Your task to perform on an android device: turn vacation reply on in the gmail app Image 0: 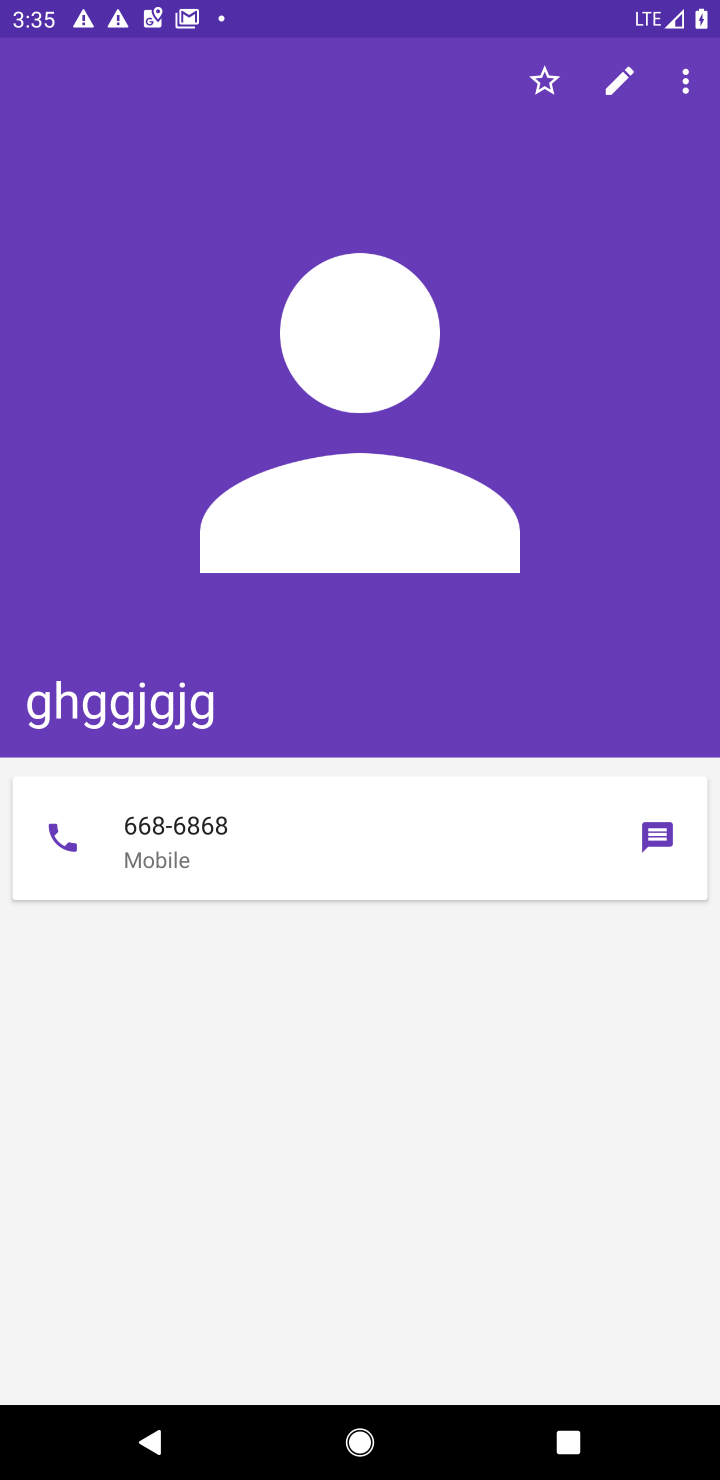
Step 0: press home button
Your task to perform on an android device: turn vacation reply on in the gmail app Image 1: 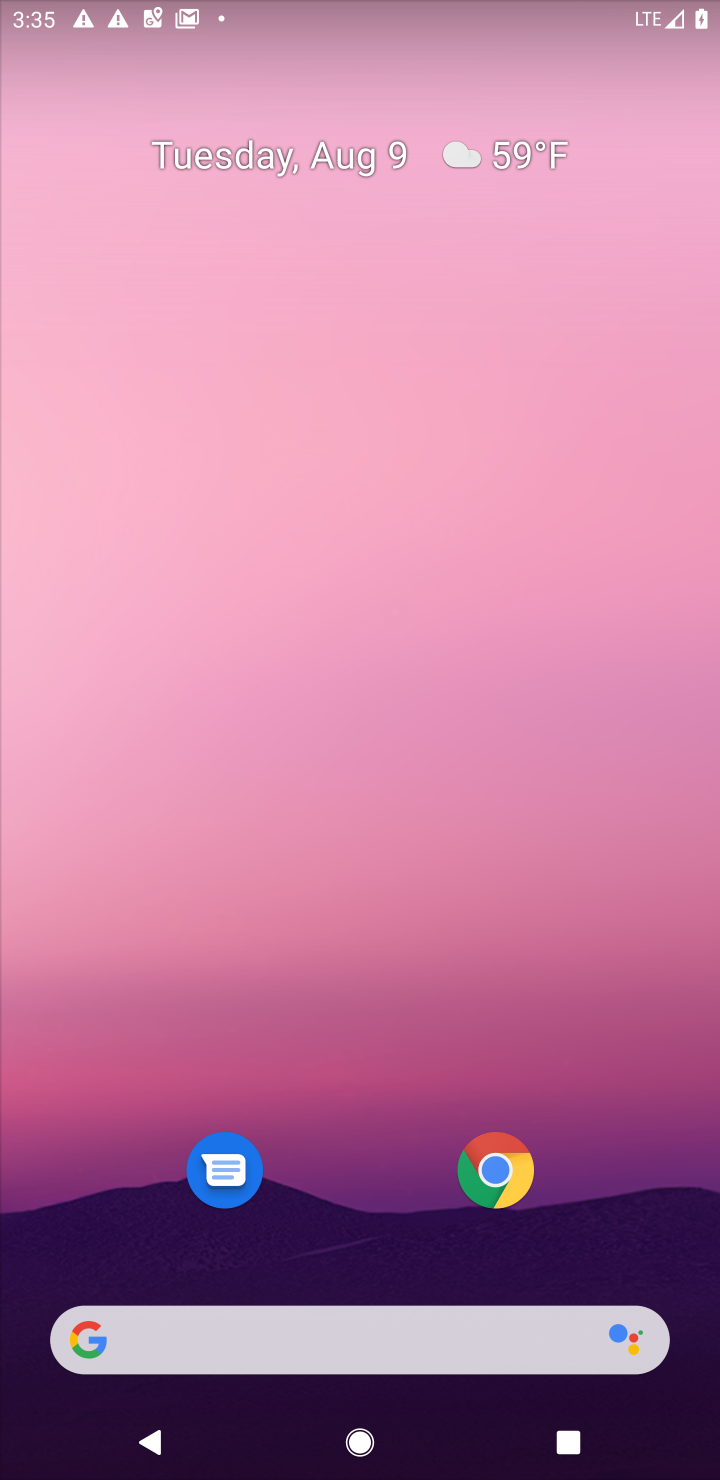
Step 1: drag from (364, 1275) to (246, 122)
Your task to perform on an android device: turn vacation reply on in the gmail app Image 2: 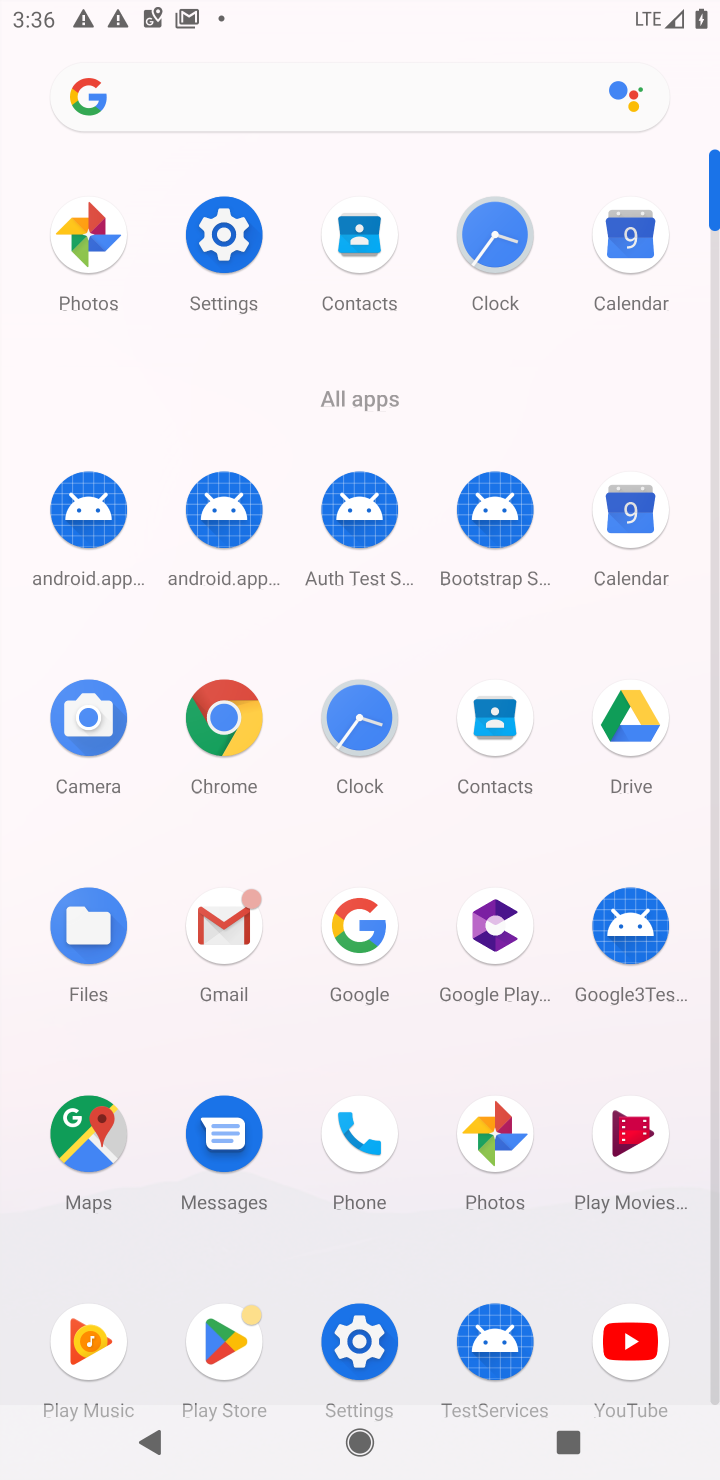
Step 2: click (229, 934)
Your task to perform on an android device: turn vacation reply on in the gmail app Image 3: 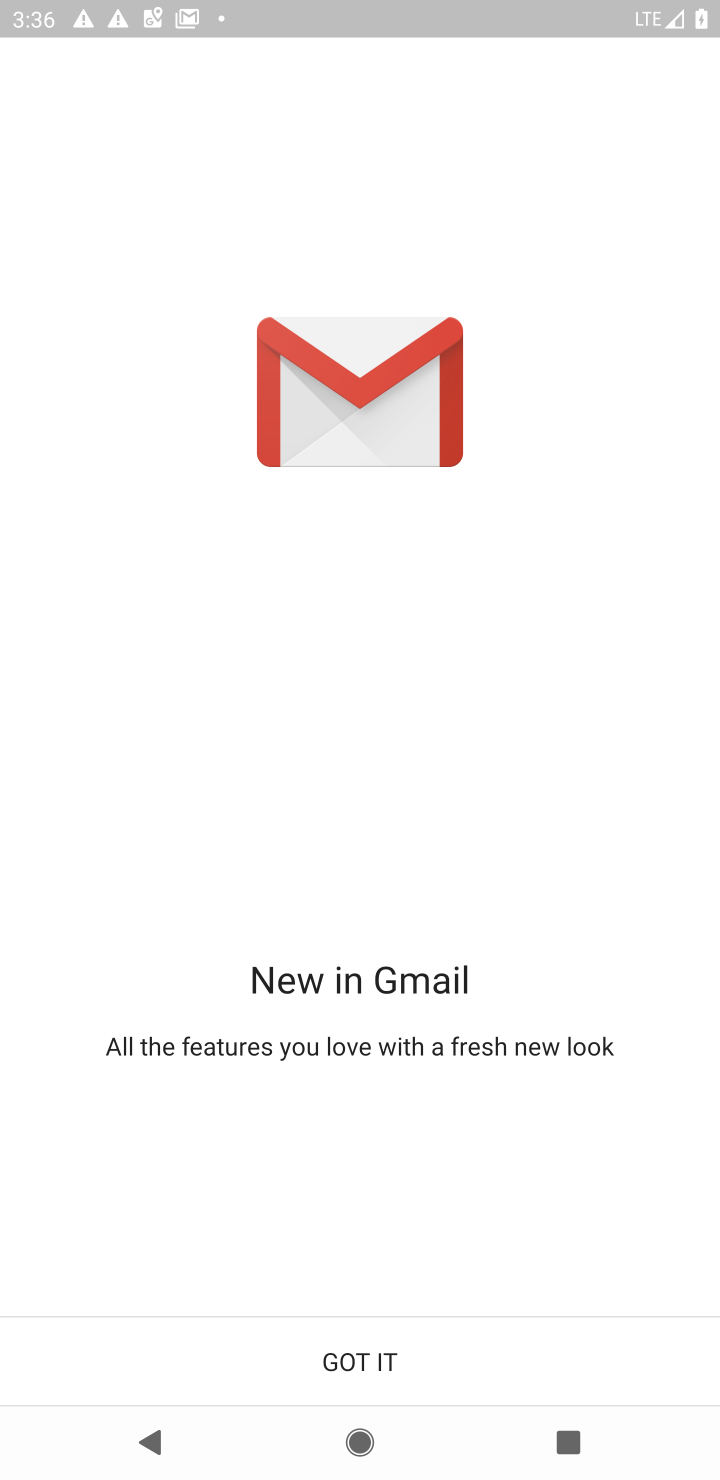
Step 3: click (346, 1363)
Your task to perform on an android device: turn vacation reply on in the gmail app Image 4: 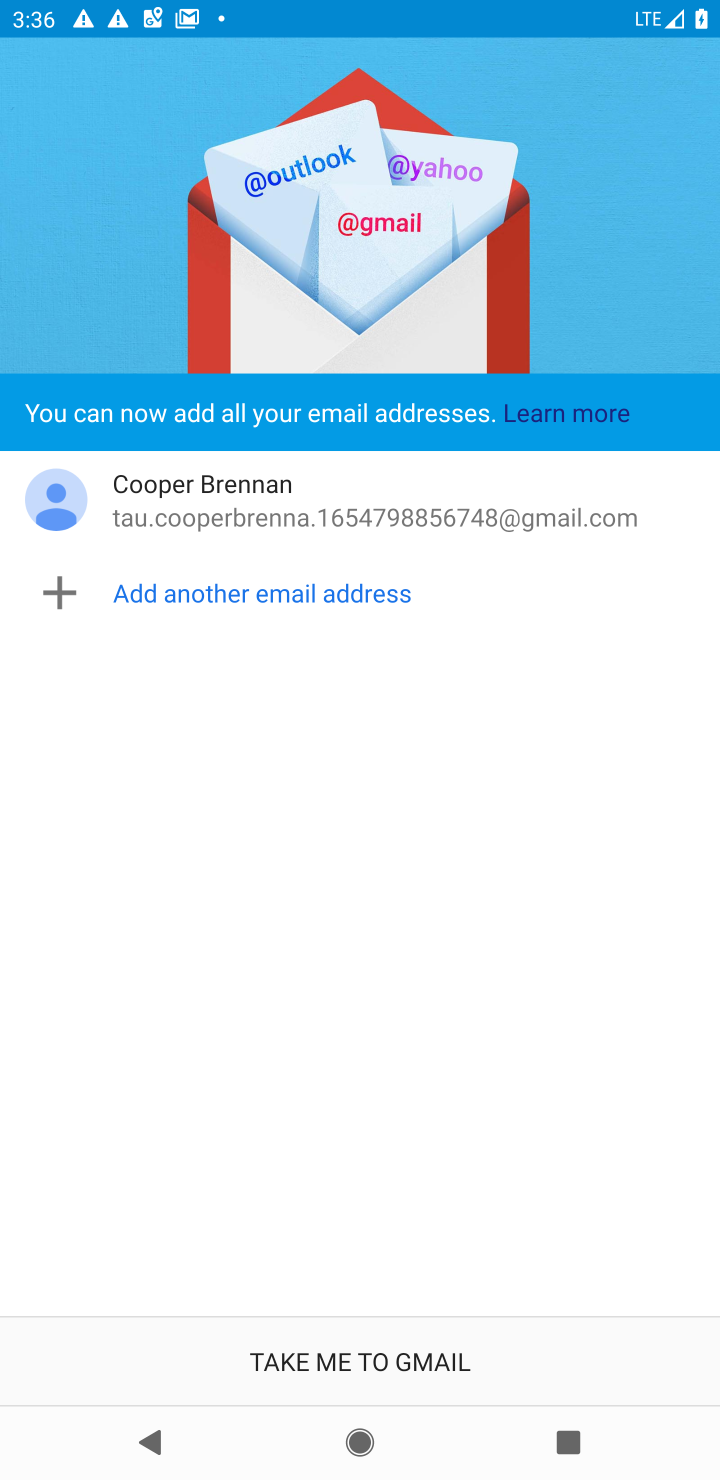
Step 4: click (341, 1351)
Your task to perform on an android device: turn vacation reply on in the gmail app Image 5: 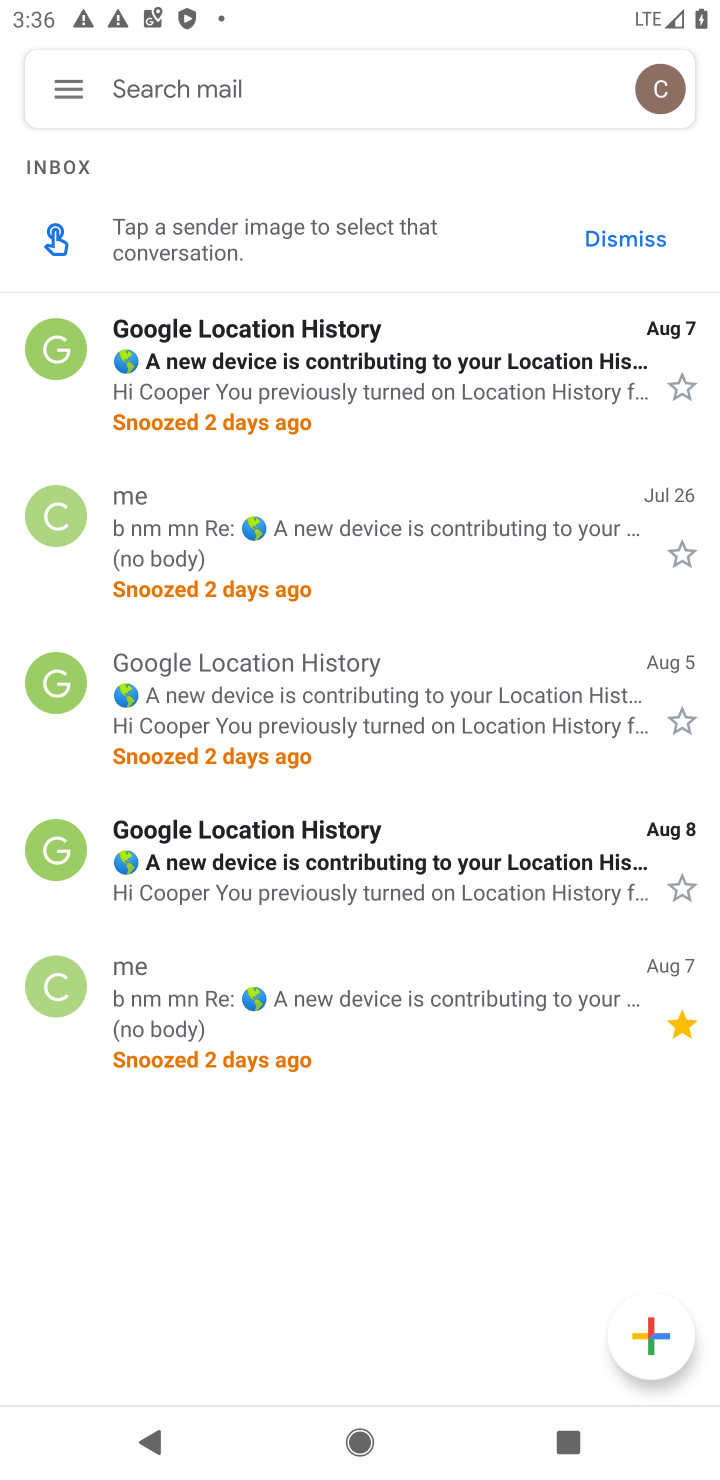
Step 5: click (54, 87)
Your task to perform on an android device: turn vacation reply on in the gmail app Image 6: 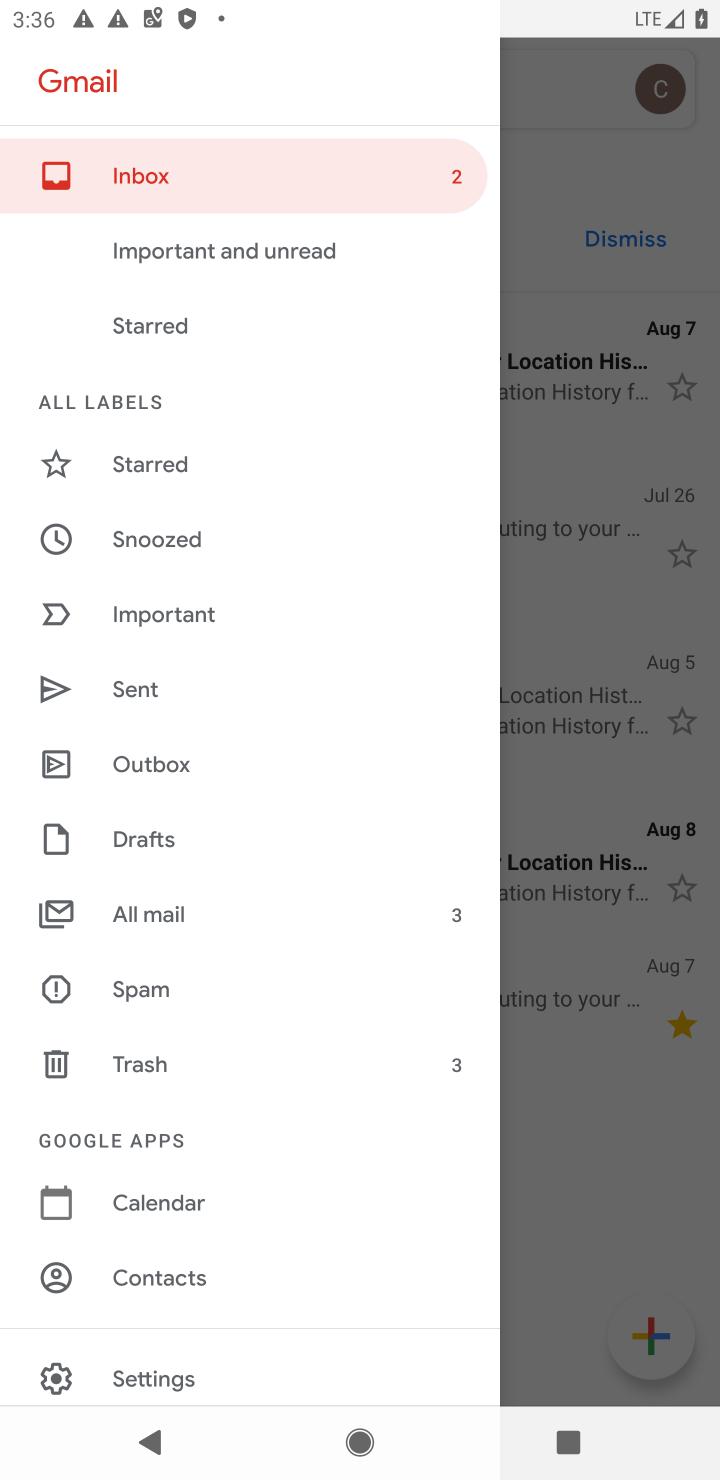
Step 6: click (157, 1371)
Your task to perform on an android device: turn vacation reply on in the gmail app Image 7: 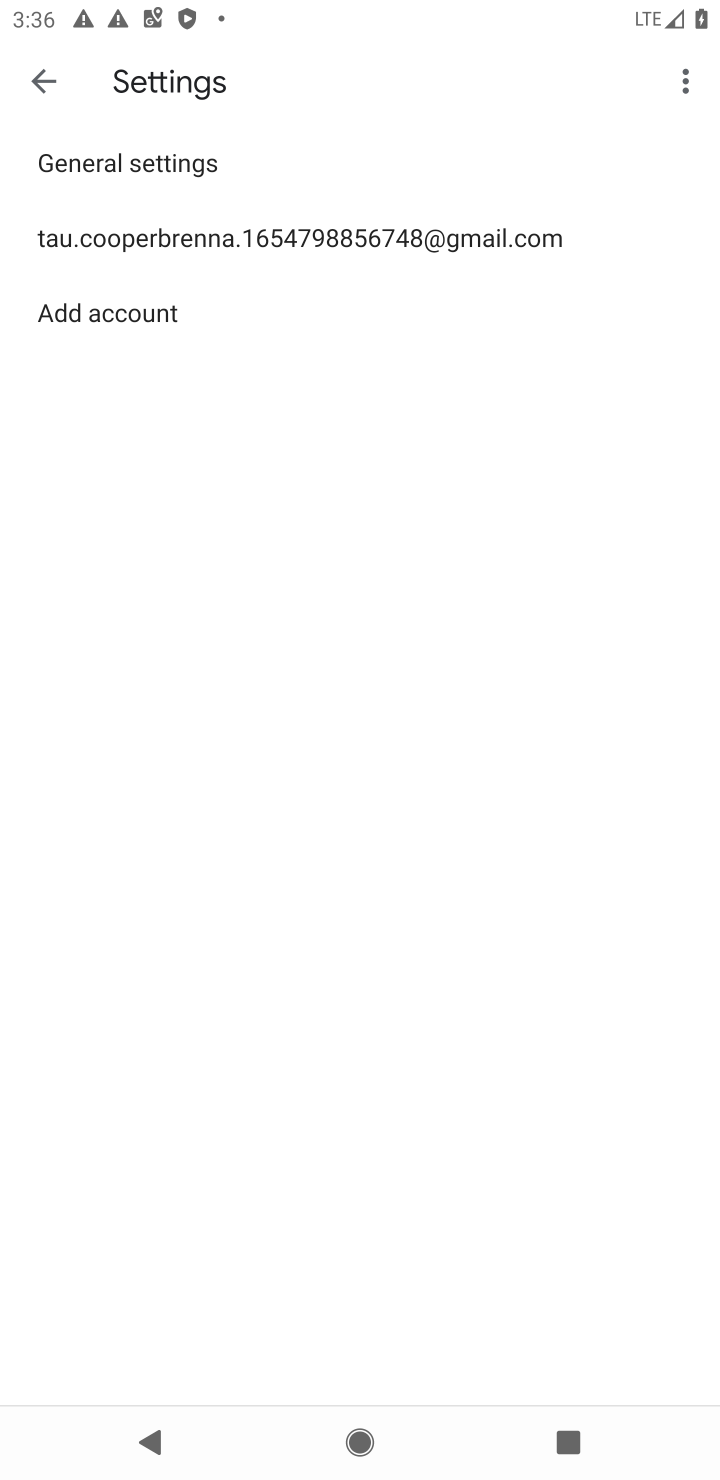
Step 7: click (203, 242)
Your task to perform on an android device: turn vacation reply on in the gmail app Image 8: 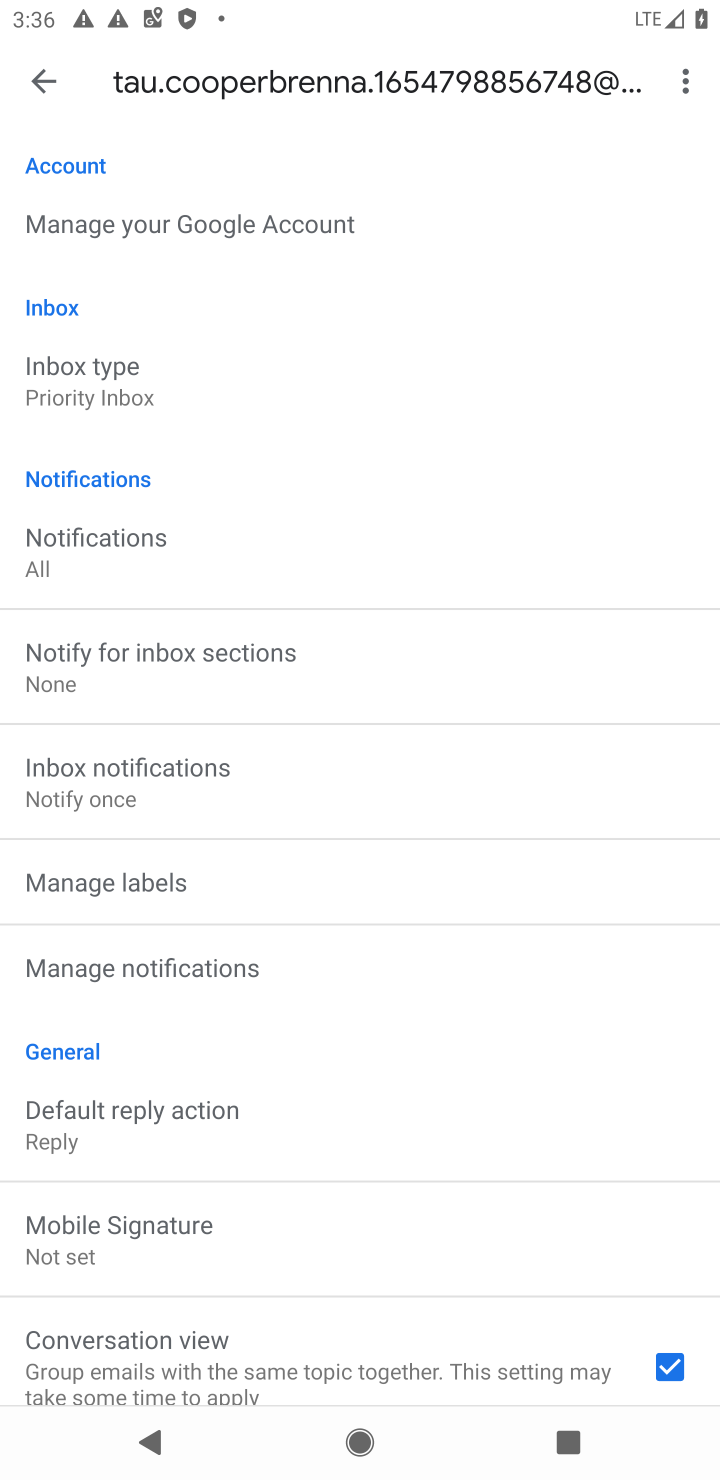
Step 8: drag from (398, 986) to (361, 102)
Your task to perform on an android device: turn vacation reply on in the gmail app Image 9: 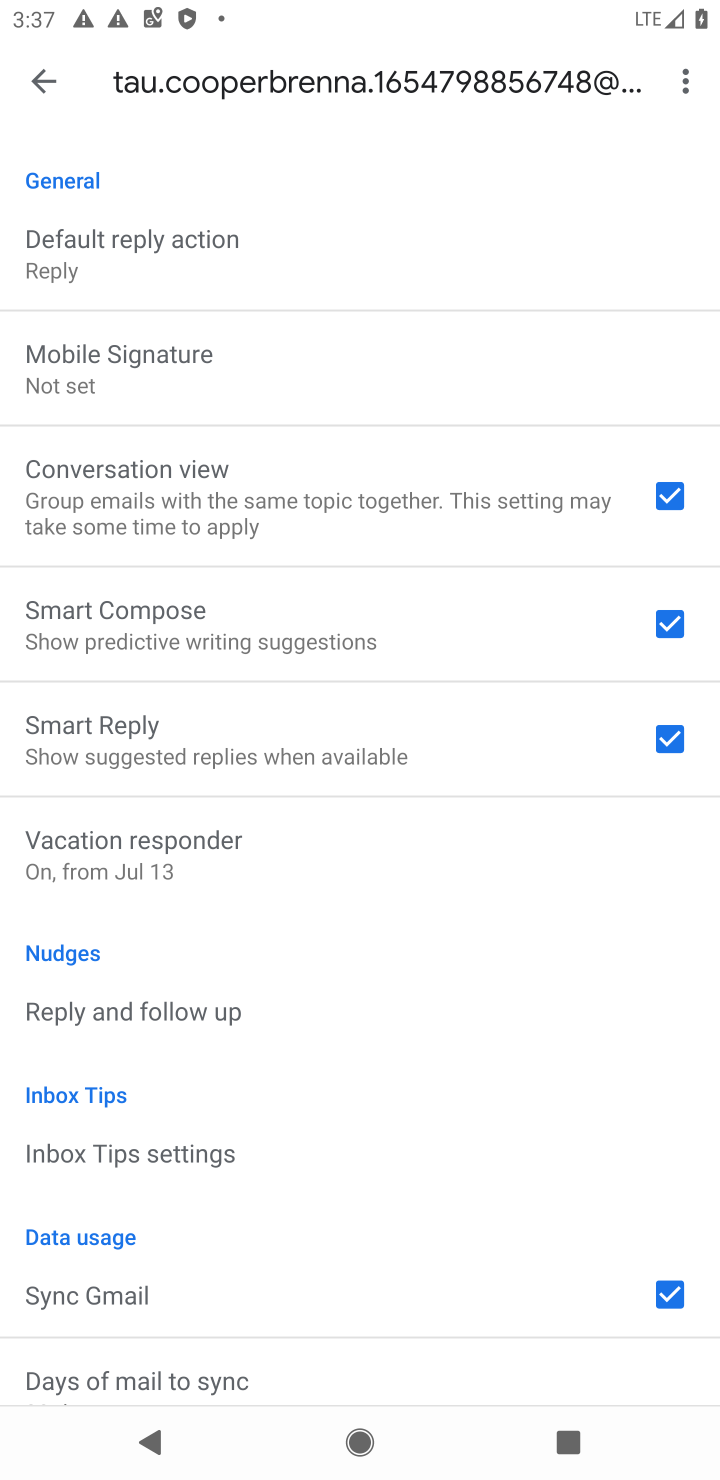
Step 9: click (97, 849)
Your task to perform on an android device: turn vacation reply on in the gmail app Image 10: 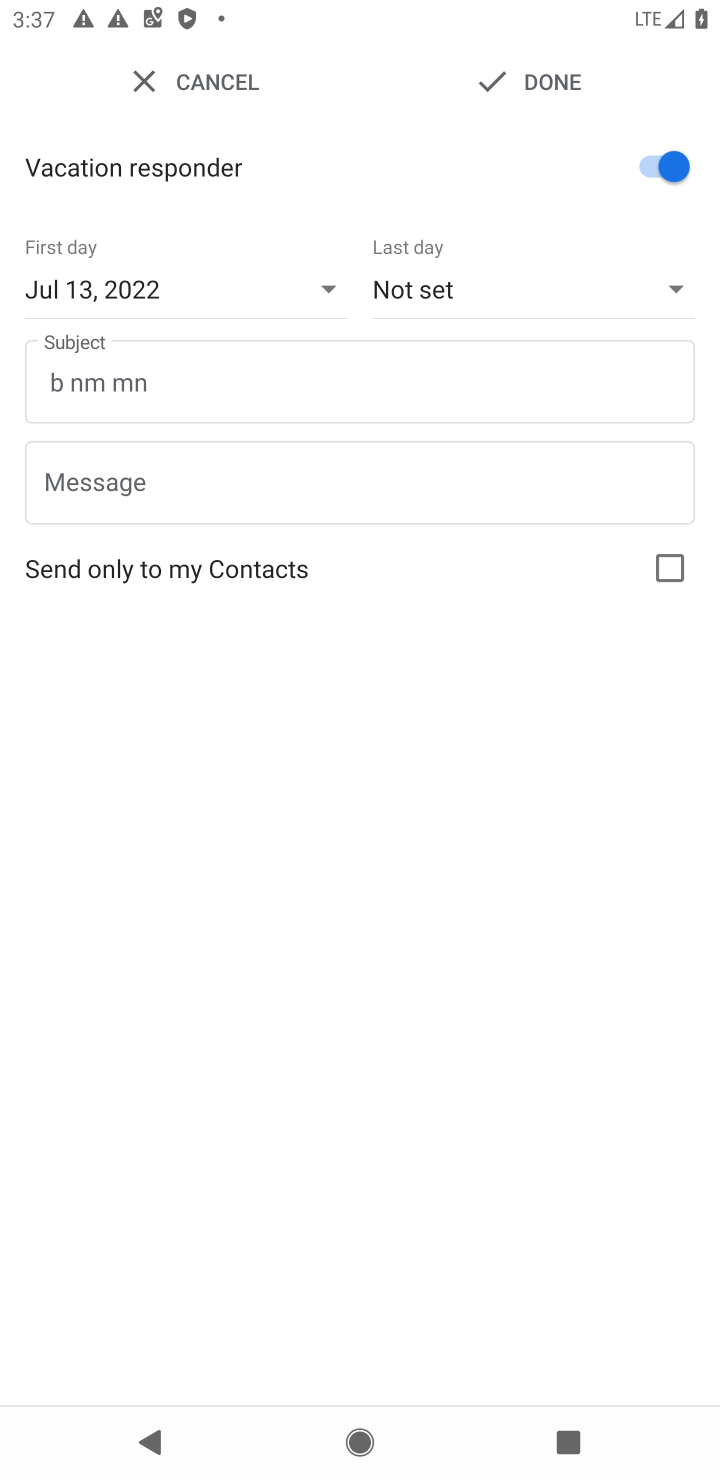
Step 10: task complete